Your task to perform on an android device: open a bookmark in the chrome app Image 0: 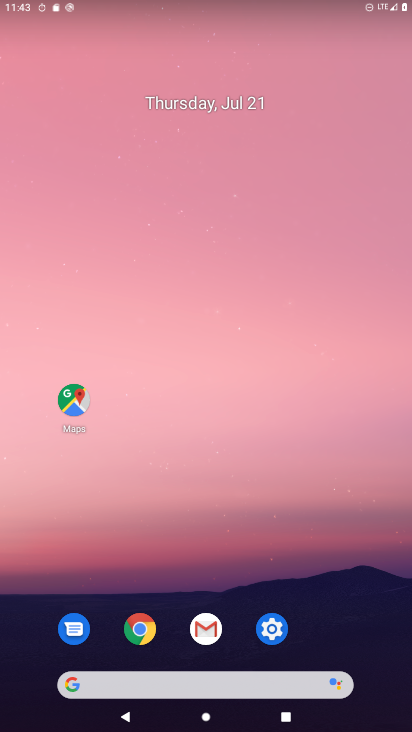
Step 0: click (156, 634)
Your task to perform on an android device: open a bookmark in the chrome app Image 1: 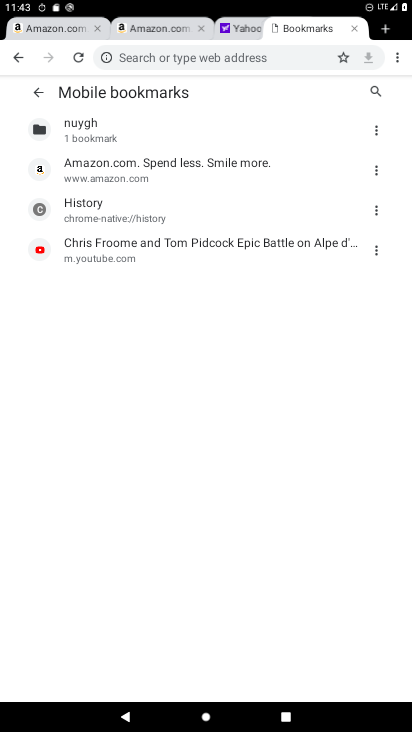
Step 1: click (396, 63)
Your task to perform on an android device: open a bookmark in the chrome app Image 2: 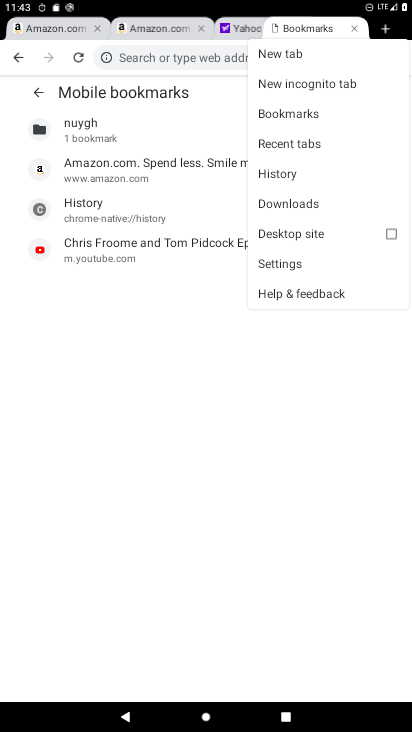
Step 2: click (310, 109)
Your task to perform on an android device: open a bookmark in the chrome app Image 3: 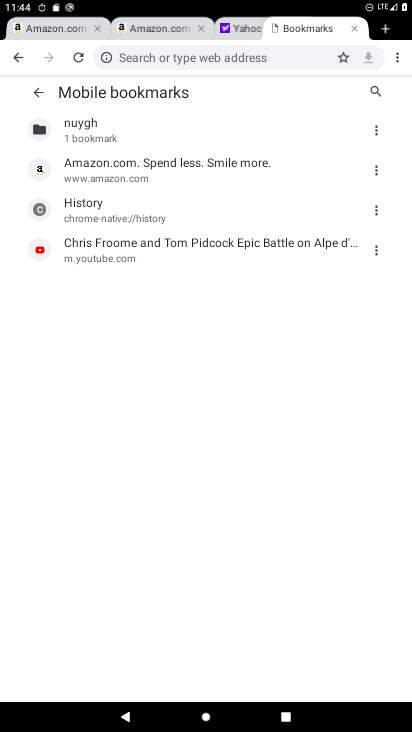
Step 3: task complete